Your task to perform on an android device: turn on data saver in the chrome app Image 0: 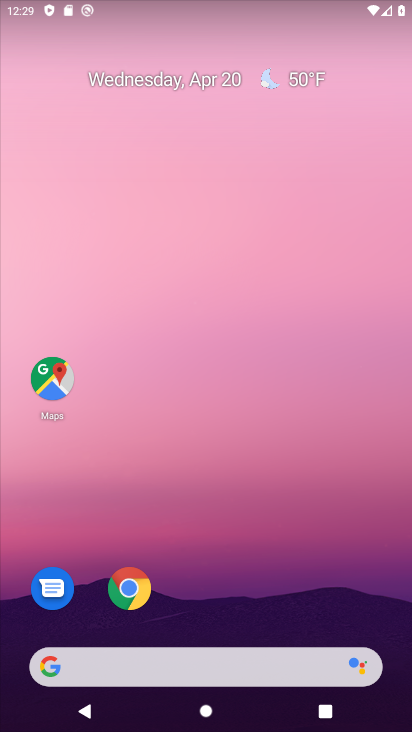
Step 0: click (129, 587)
Your task to perform on an android device: turn on data saver in the chrome app Image 1: 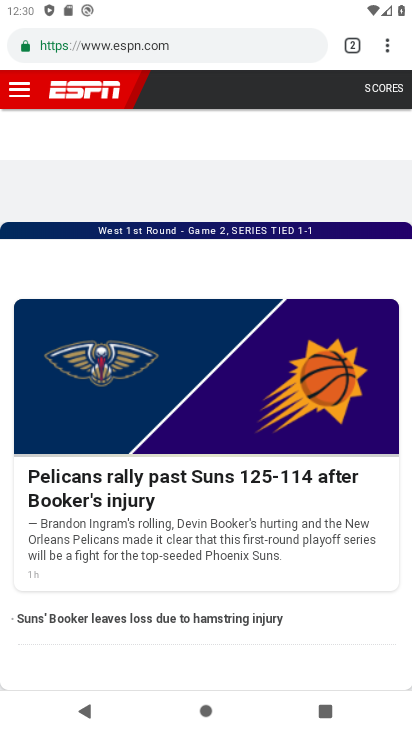
Step 1: press home button
Your task to perform on an android device: turn on data saver in the chrome app Image 2: 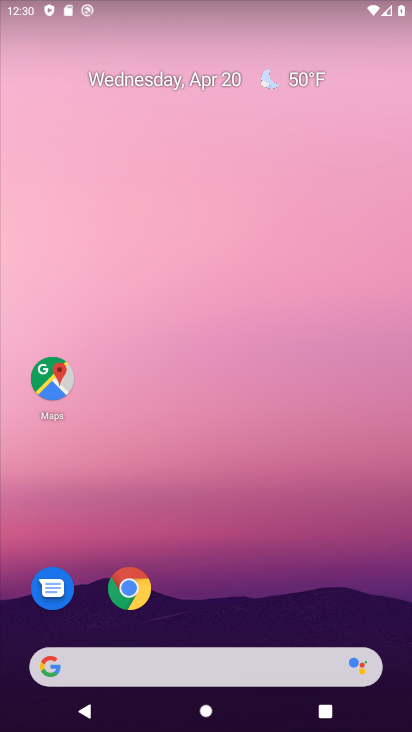
Step 2: click (127, 585)
Your task to perform on an android device: turn on data saver in the chrome app Image 3: 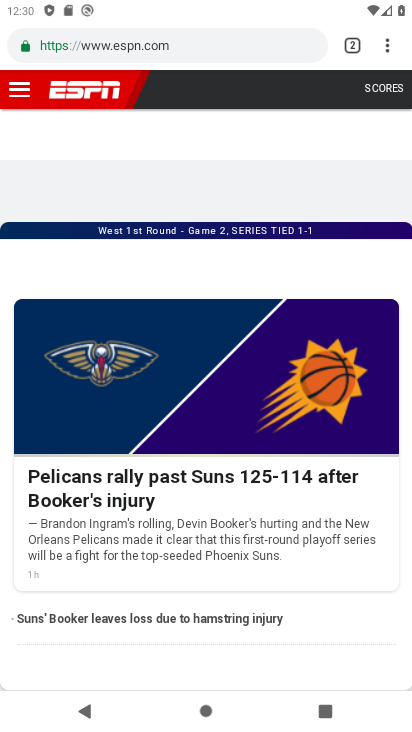
Step 3: click (387, 48)
Your task to perform on an android device: turn on data saver in the chrome app Image 4: 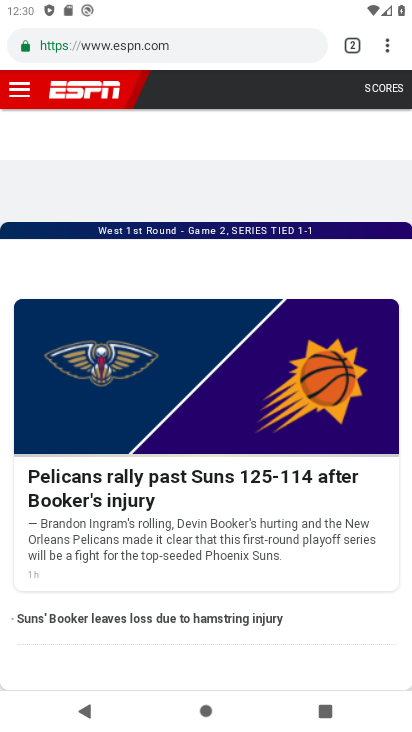
Step 4: click (389, 44)
Your task to perform on an android device: turn on data saver in the chrome app Image 5: 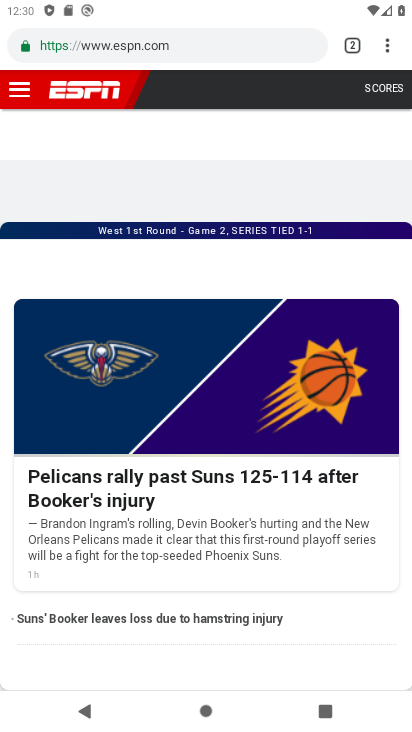
Step 5: click (387, 46)
Your task to perform on an android device: turn on data saver in the chrome app Image 6: 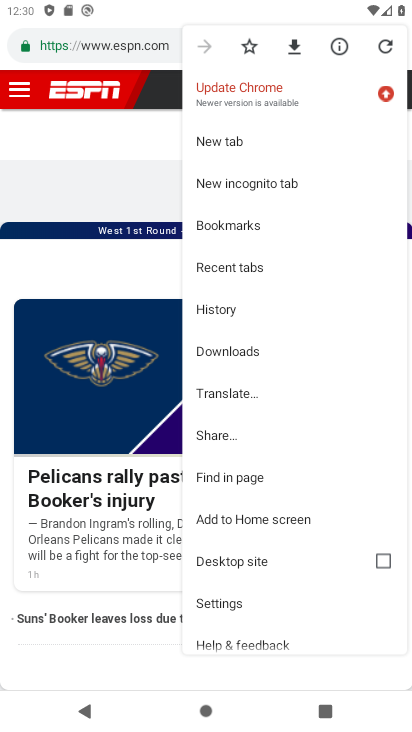
Step 6: click (245, 601)
Your task to perform on an android device: turn on data saver in the chrome app Image 7: 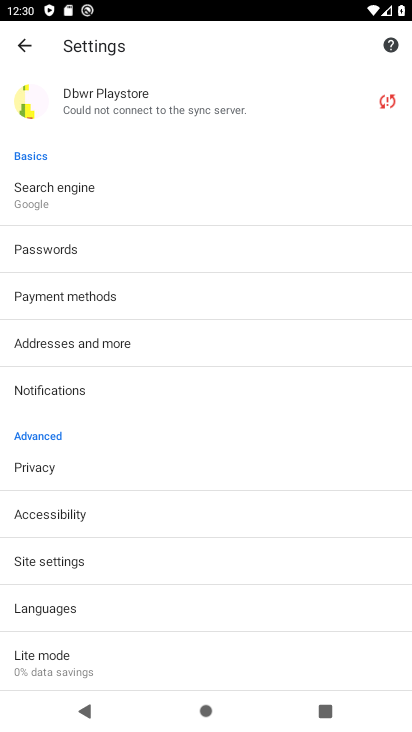
Step 7: click (135, 659)
Your task to perform on an android device: turn on data saver in the chrome app Image 8: 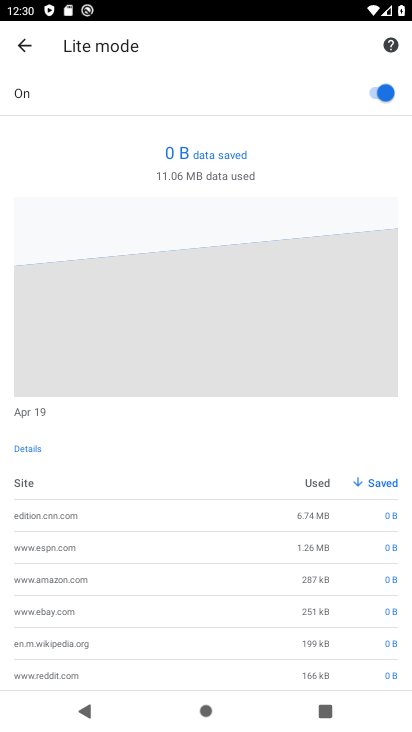
Step 8: task complete